Your task to perform on an android device: Clear the shopping cart on ebay. Search for razer deathadder on ebay, select the first entry, add it to the cart, then select checkout. Image 0: 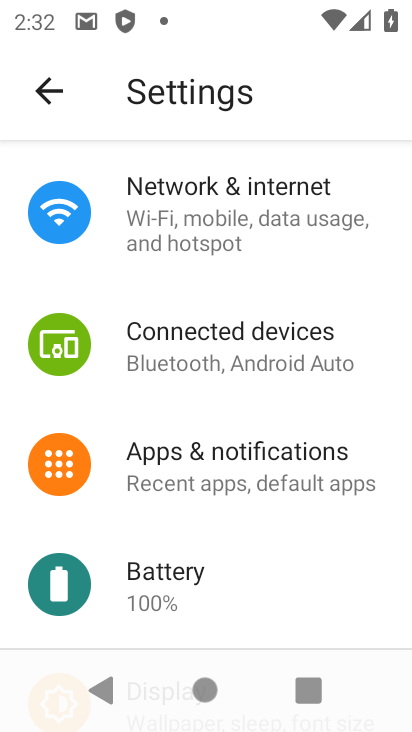
Step 0: task complete